Your task to perform on an android device: empty trash in the gmail app Image 0: 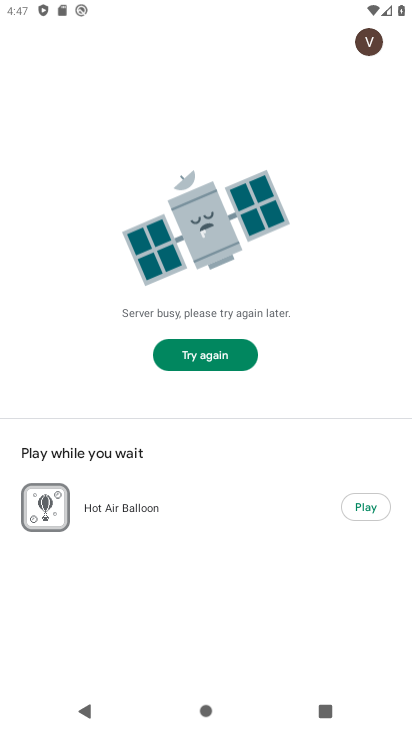
Step 0: press home button
Your task to perform on an android device: empty trash in the gmail app Image 1: 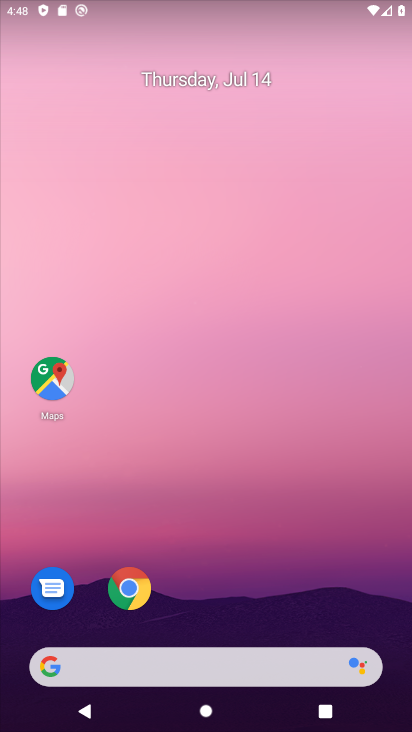
Step 1: drag from (224, 608) to (260, 98)
Your task to perform on an android device: empty trash in the gmail app Image 2: 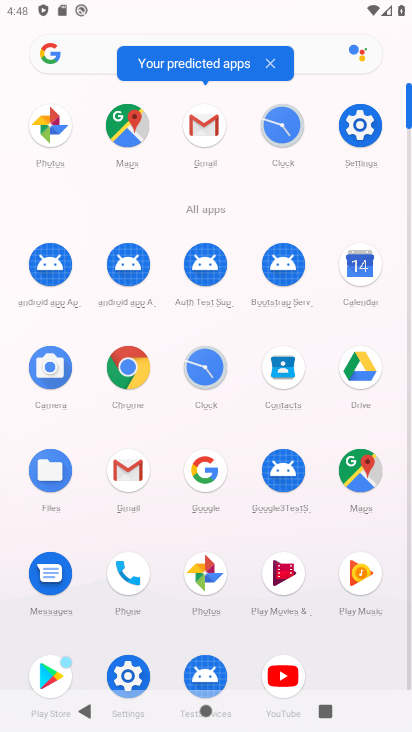
Step 2: click (121, 485)
Your task to perform on an android device: empty trash in the gmail app Image 3: 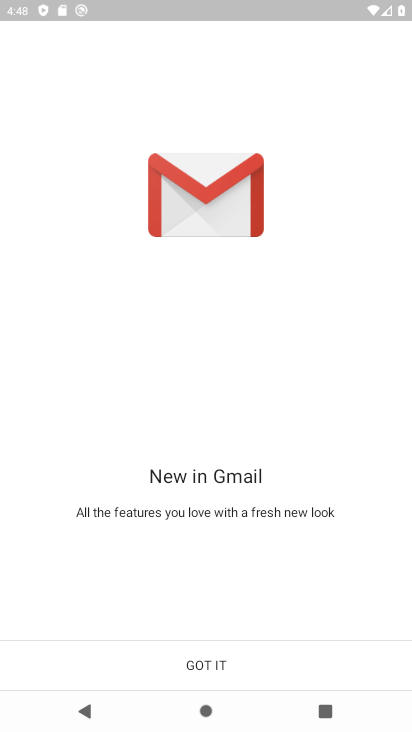
Step 3: click (220, 669)
Your task to perform on an android device: empty trash in the gmail app Image 4: 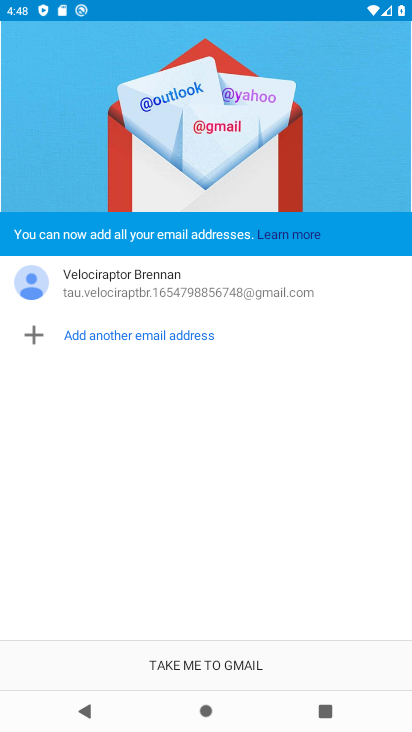
Step 4: click (224, 677)
Your task to perform on an android device: empty trash in the gmail app Image 5: 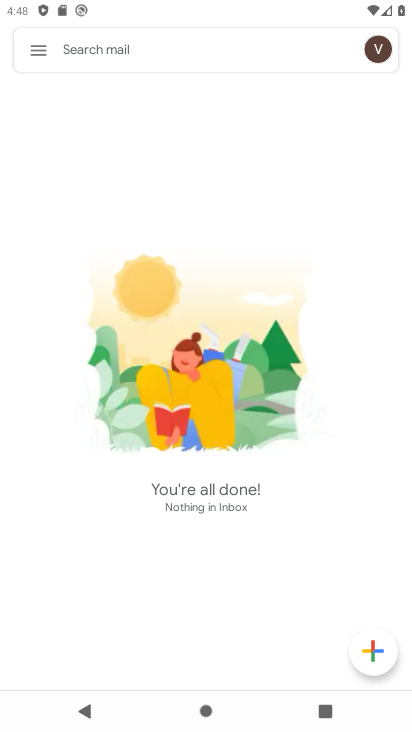
Step 5: click (28, 51)
Your task to perform on an android device: empty trash in the gmail app Image 6: 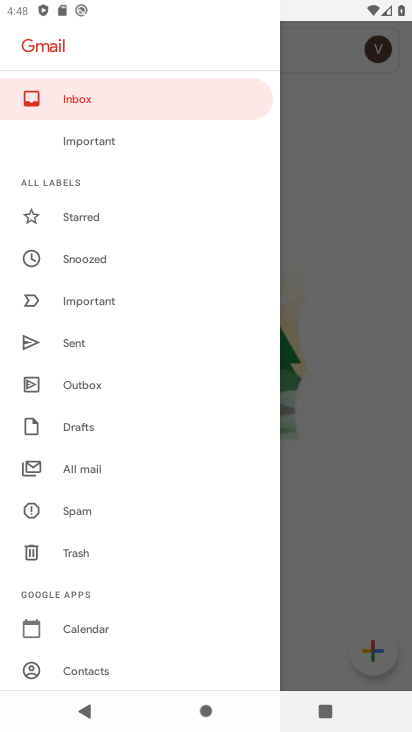
Step 6: click (87, 552)
Your task to perform on an android device: empty trash in the gmail app Image 7: 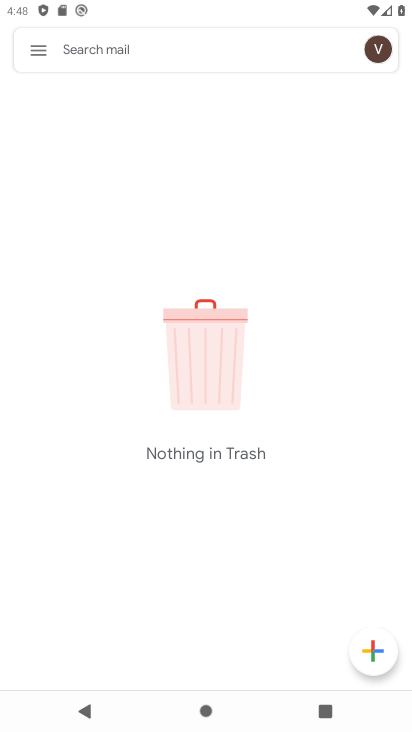
Step 7: task complete